Your task to perform on an android device: check out phone information Image 0: 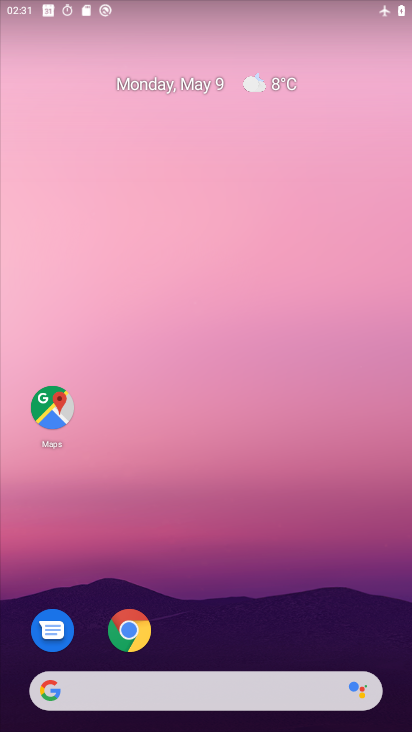
Step 0: drag from (229, 628) to (390, 330)
Your task to perform on an android device: check out phone information Image 1: 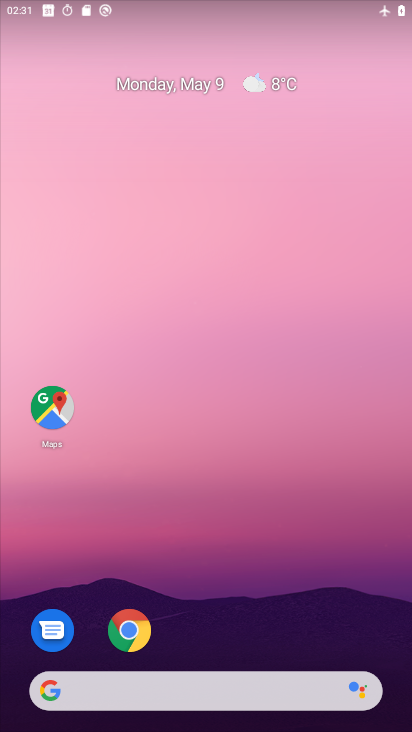
Step 1: drag from (233, 607) to (223, 27)
Your task to perform on an android device: check out phone information Image 2: 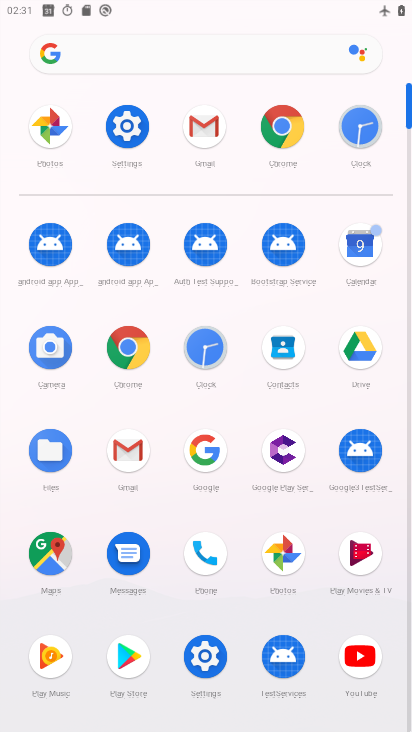
Step 2: click (127, 159)
Your task to perform on an android device: check out phone information Image 3: 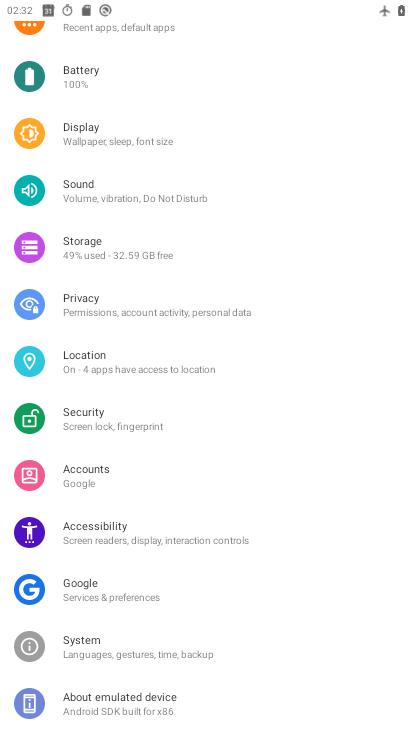
Step 3: drag from (128, 516) to (154, 73)
Your task to perform on an android device: check out phone information Image 4: 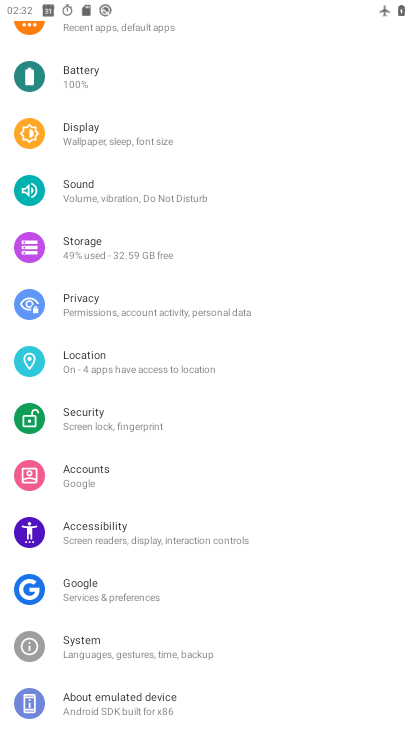
Step 4: click (121, 715)
Your task to perform on an android device: check out phone information Image 5: 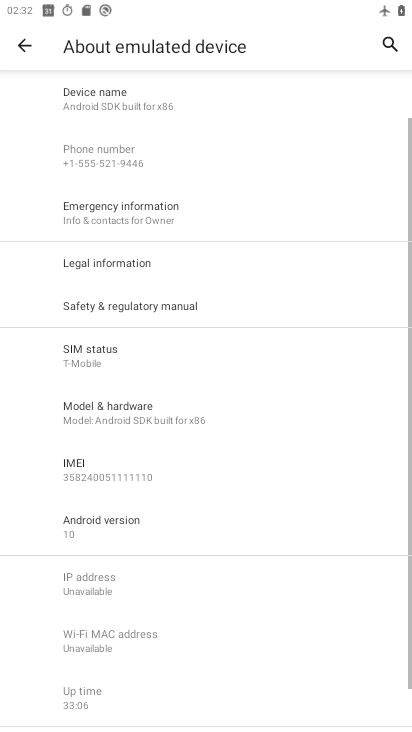
Step 5: task complete